Your task to perform on an android device: toggle javascript in the chrome app Image 0: 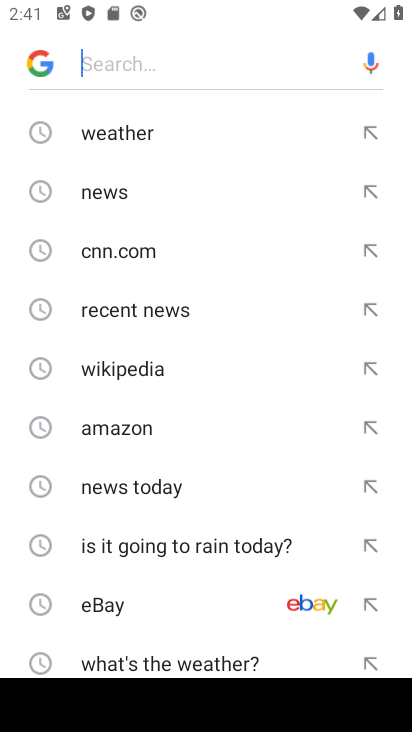
Step 0: press back button
Your task to perform on an android device: toggle javascript in the chrome app Image 1: 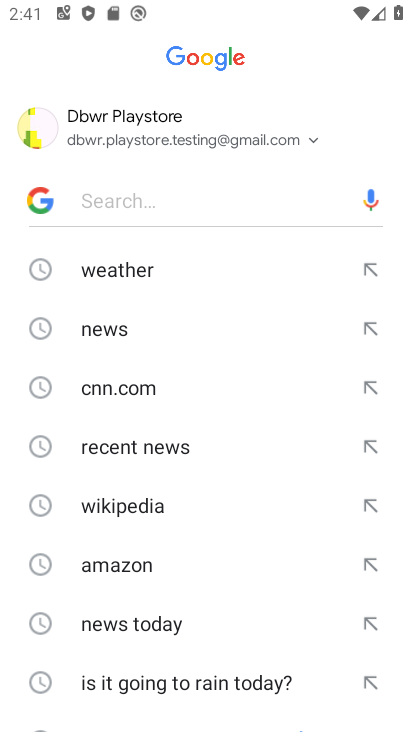
Step 1: press back button
Your task to perform on an android device: toggle javascript in the chrome app Image 2: 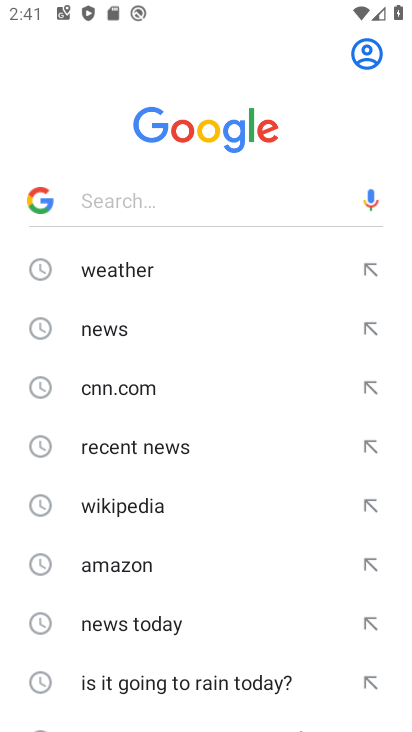
Step 2: press back button
Your task to perform on an android device: toggle javascript in the chrome app Image 3: 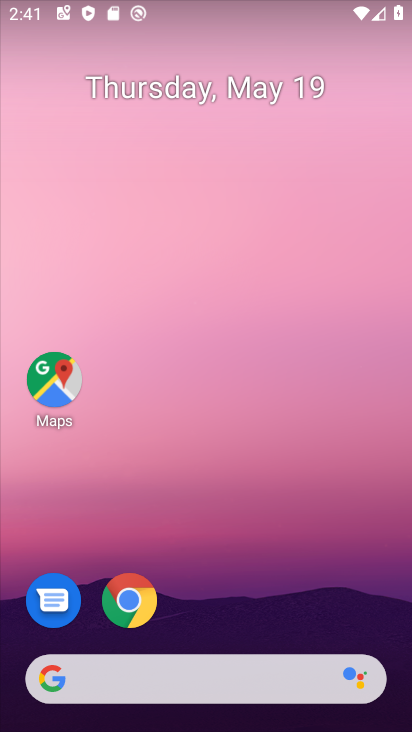
Step 3: click (130, 595)
Your task to perform on an android device: toggle javascript in the chrome app Image 4: 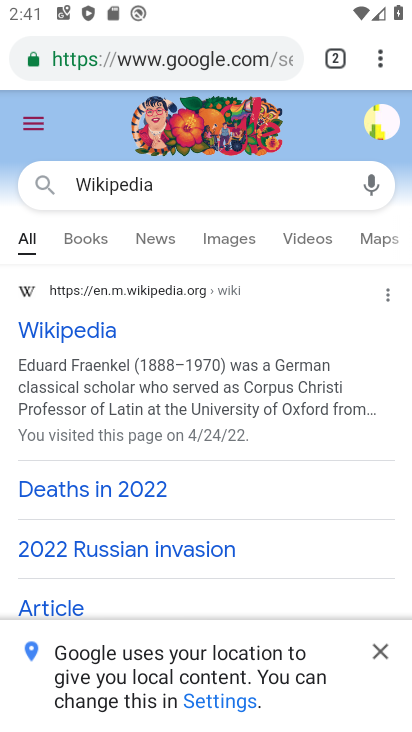
Step 4: click (379, 54)
Your task to perform on an android device: toggle javascript in the chrome app Image 5: 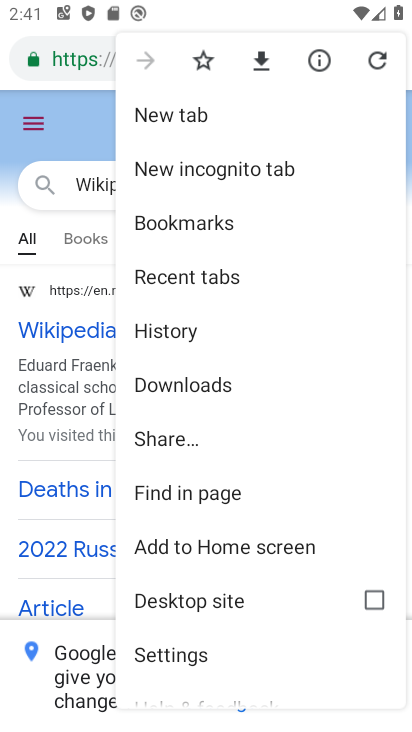
Step 5: click (176, 658)
Your task to perform on an android device: toggle javascript in the chrome app Image 6: 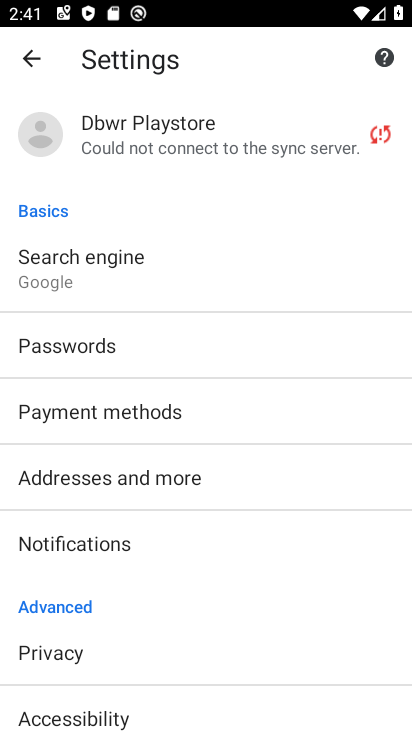
Step 6: drag from (186, 678) to (211, 491)
Your task to perform on an android device: toggle javascript in the chrome app Image 7: 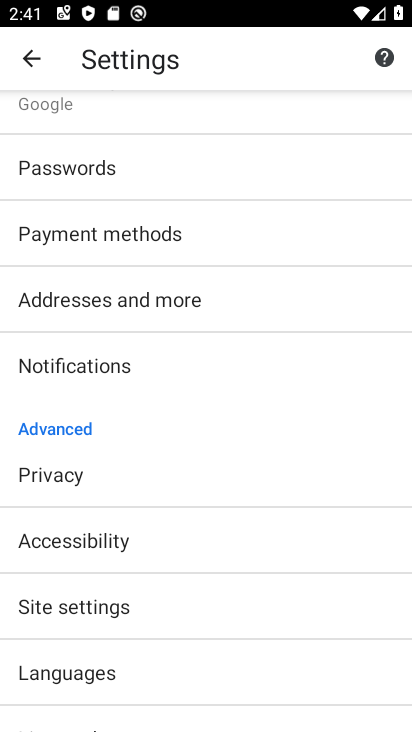
Step 7: click (47, 600)
Your task to perform on an android device: toggle javascript in the chrome app Image 8: 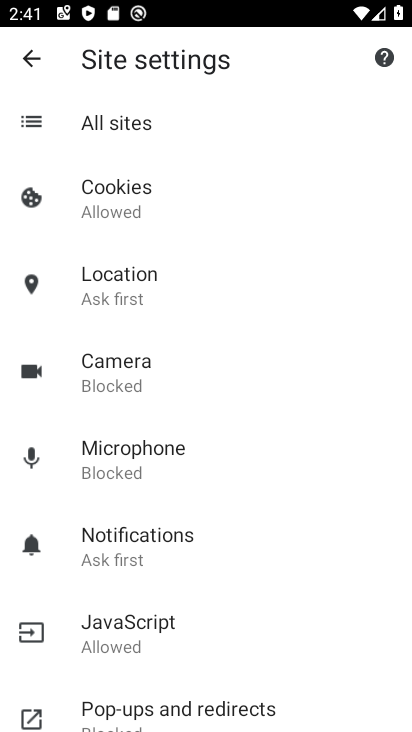
Step 8: click (154, 624)
Your task to perform on an android device: toggle javascript in the chrome app Image 9: 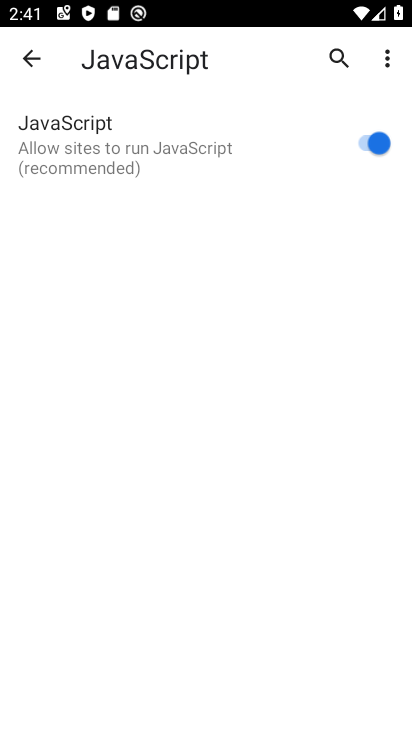
Step 9: click (362, 134)
Your task to perform on an android device: toggle javascript in the chrome app Image 10: 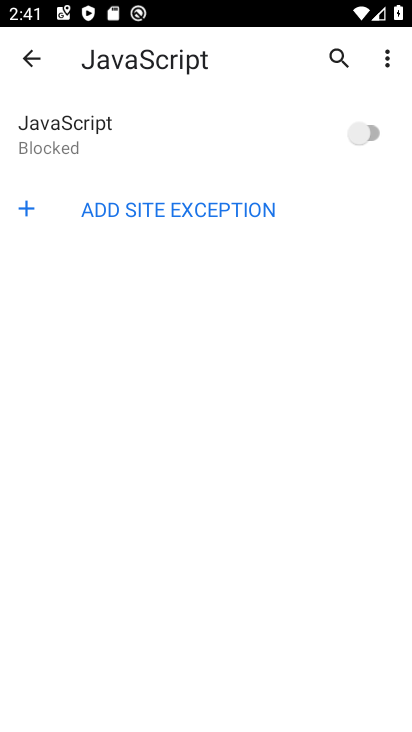
Step 10: task complete